Your task to perform on an android device: Play the last video I watched on Youtube Image 0: 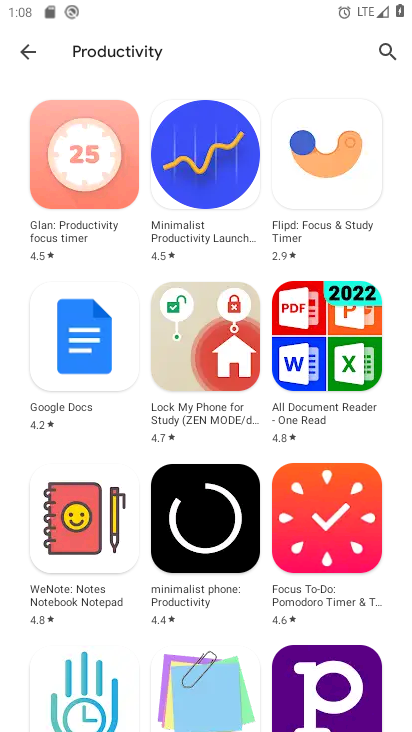
Step 0: press home button
Your task to perform on an android device: Play the last video I watched on Youtube Image 1: 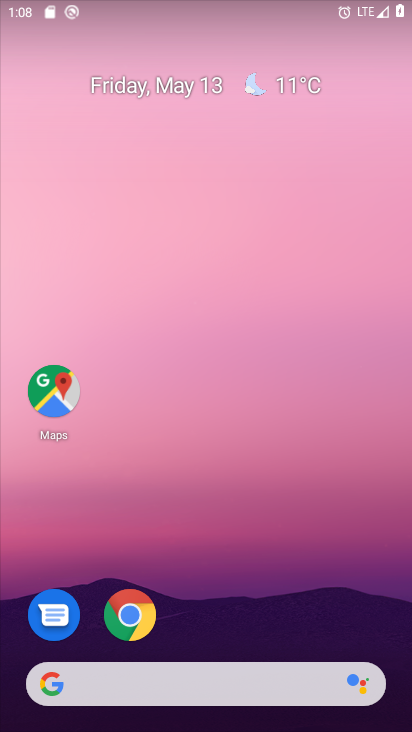
Step 1: drag from (244, 559) to (235, 52)
Your task to perform on an android device: Play the last video I watched on Youtube Image 2: 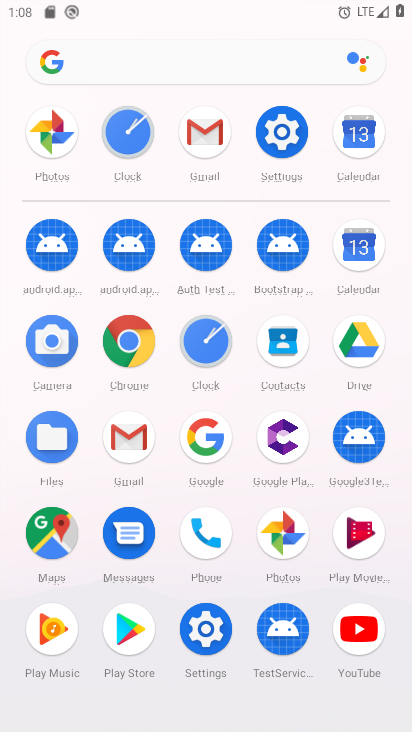
Step 2: drag from (232, 535) to (229, 328)
Your task to perform on an android device: Play the last video I watched on Youtube Image 3: 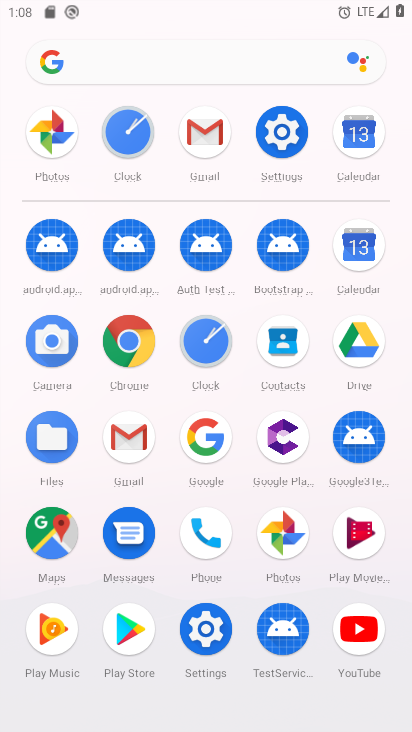
Step 3: click (355, 611)
Your task to perform on an android device: Play the last video I watched on Youtube Image 4: 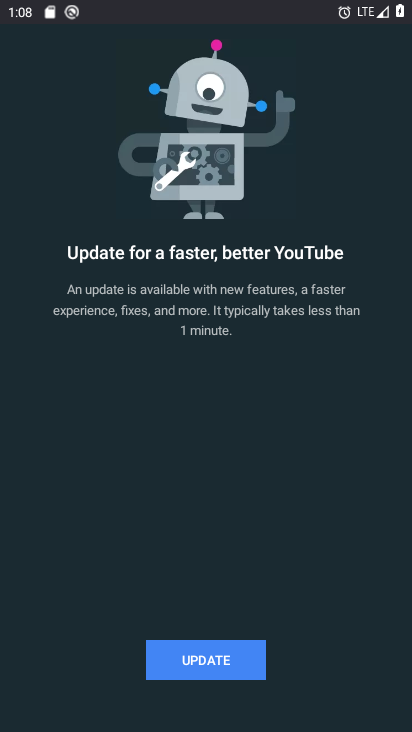
Step 4: click (260, 657)
Your task to perform on an android device: Play the last video I watched on Youtube Image 5: 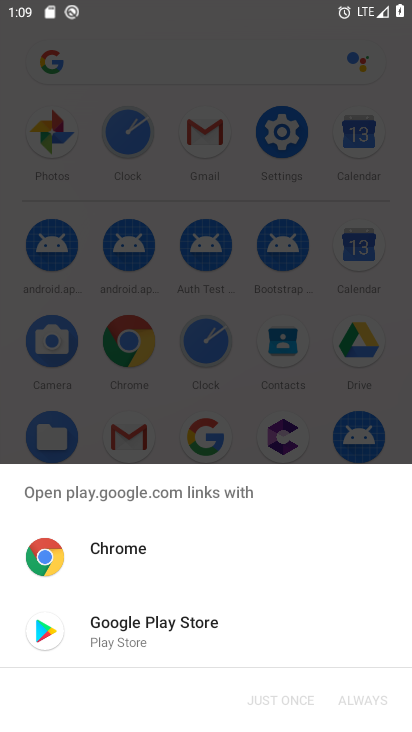
Step 5: click (122, 619)
Your task to perform on an android device: Play the last video I watched on Youtube Image 6: 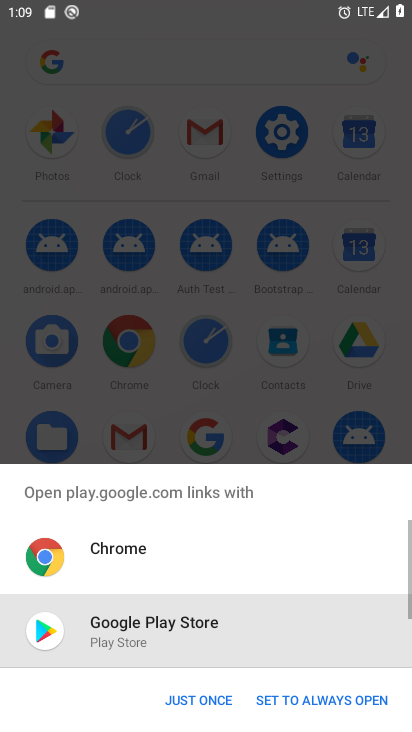
Step 6: click (206, 700)
Your task to perform on an android device: Play the last video I watched on Youtube Image 7: 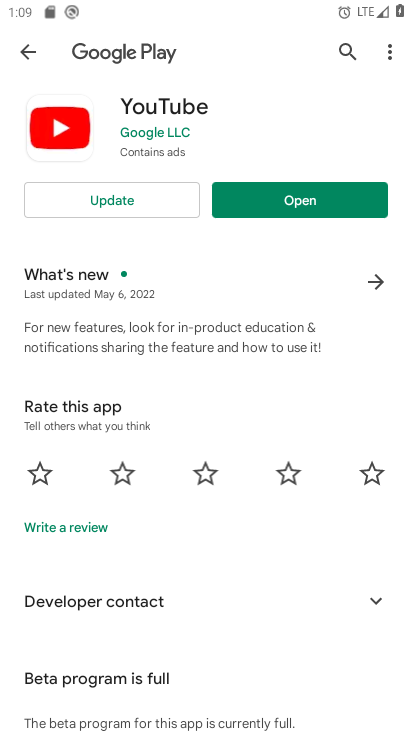
Step 7: click (111, 199)
Your task to perform on an android device: Play the last video I watched on Youtube Image 8: 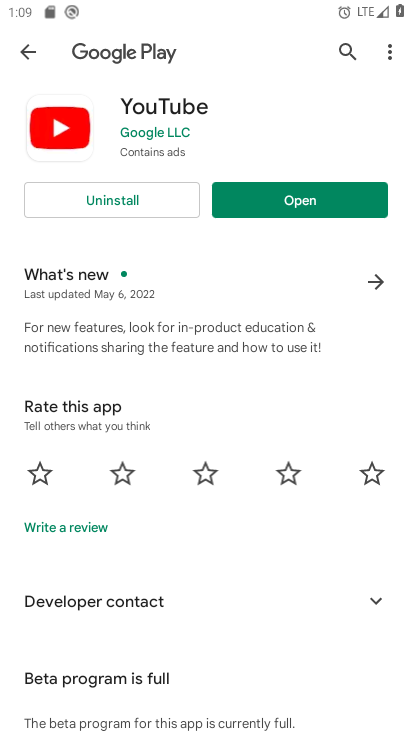
Step 8: click (297, 194)
Your task to perform on an android device: Play the last video I watched on Youtube Image 9: 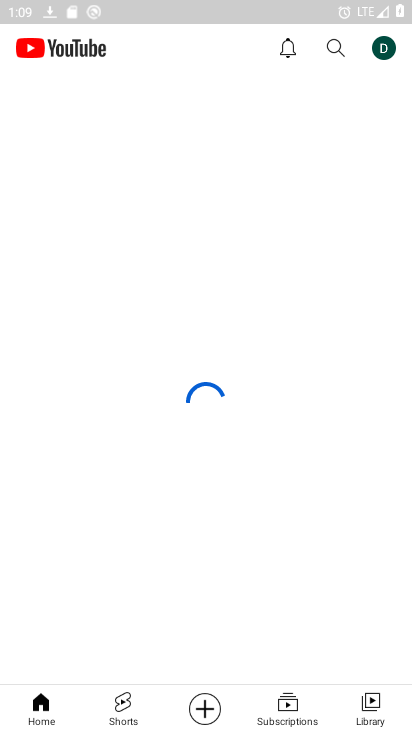
Step 9: click (368, 695)
Your task to perform on an android device: Play the last video I watched on Youtube Image 10: 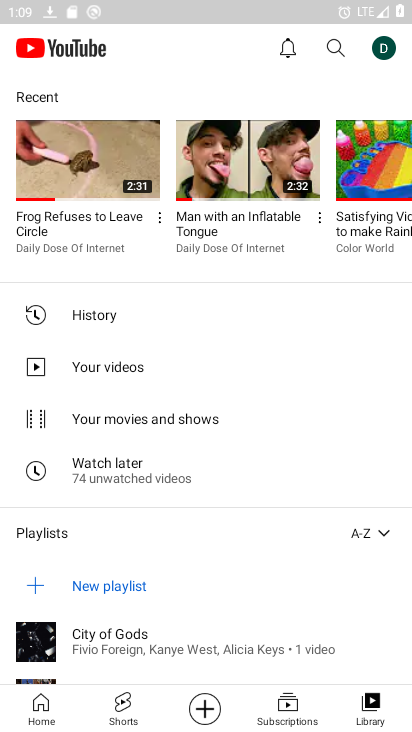
Step 10: click (199, 309)
Your task to perform on an android device: Play the last video I watched on Youtube Image 11: 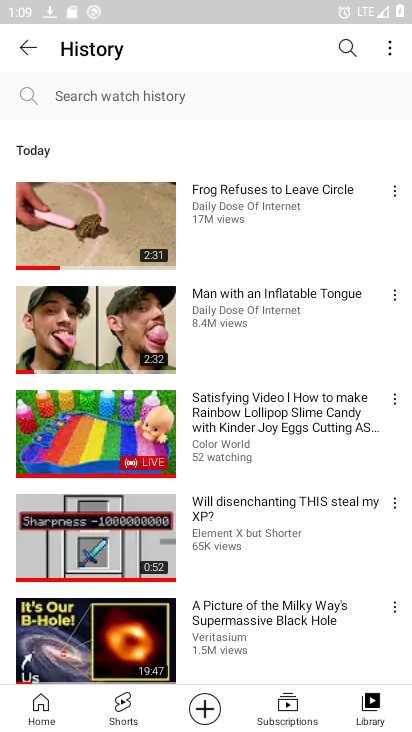
Step 11: click (129, 212)
Your task to perform on an android device: Play the last video I watched on Youtube Image 12: 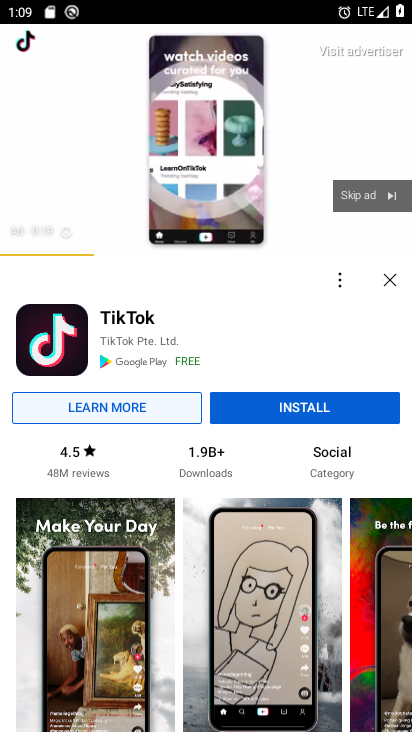
Step 12: task complete